Your task to perform on an android device: Open my contact list Image 0: 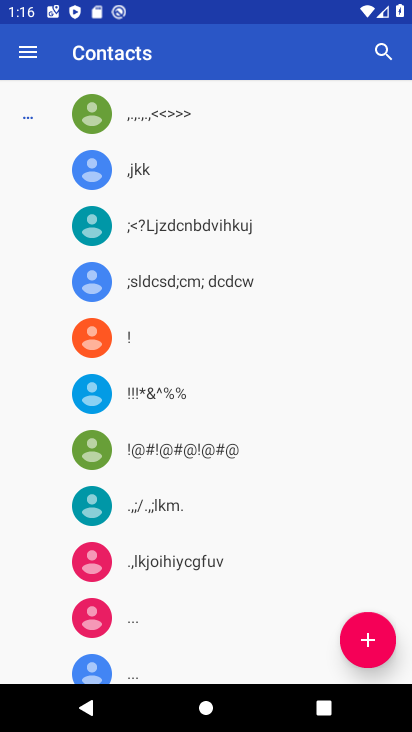
Step 0: press home button
Your task to perform on an android device: Open my contact list Image 1: 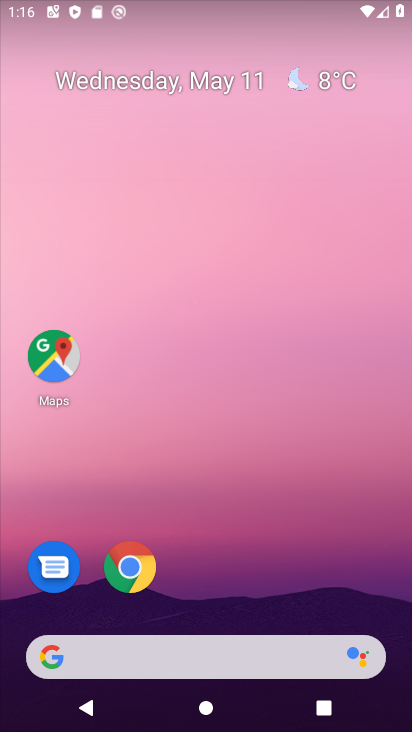
Step 1: drag from (244, 535) to (220, 227)
Your task to perform on an android device: Open my contact list Image 2: 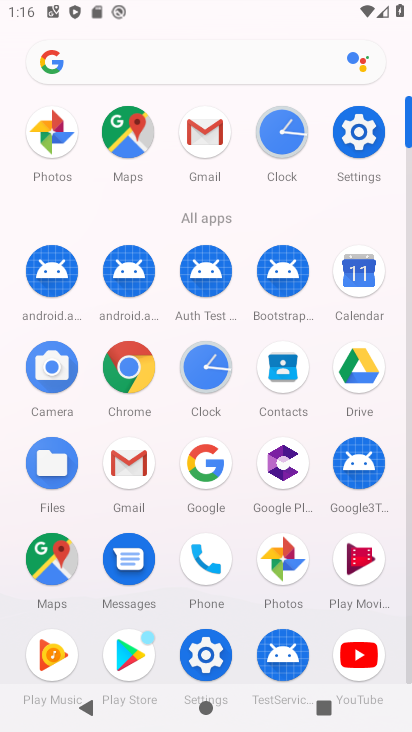
Step 2: click (276, 362)
Your task to perform on an android device: Open my contact list Image 3: 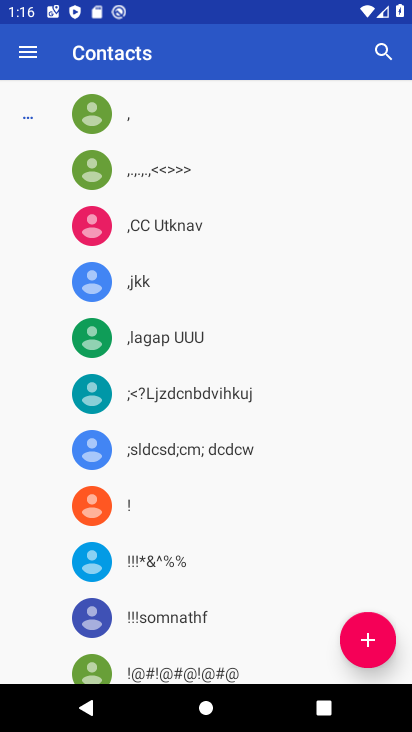
Step 3: task complete